Your task to perform on an android device: find snoozed emails in the gmail app Image 0: 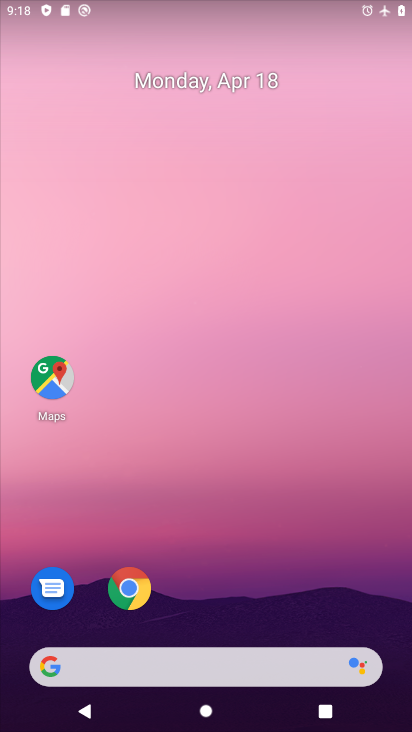
Step 0: drag from (196, 580) to (234, 341)
Your task to perform on an android device: find snoozed emails in the gmail app Image 1: 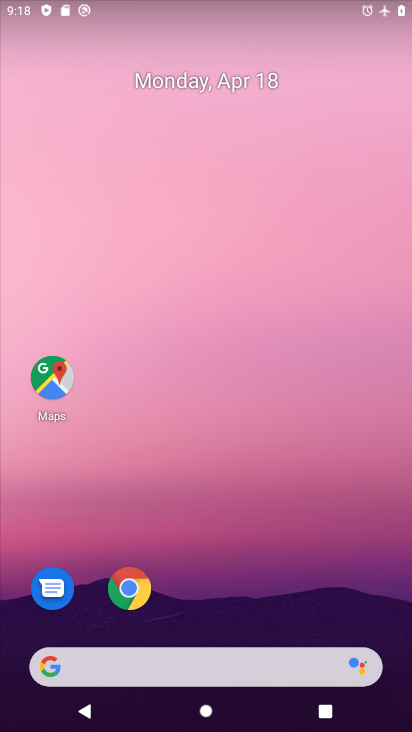
Step 1: drag from (194, 597) to (246, 201)
Your task to perform on an android device: find snoozed emails in the gmail app Image 2: 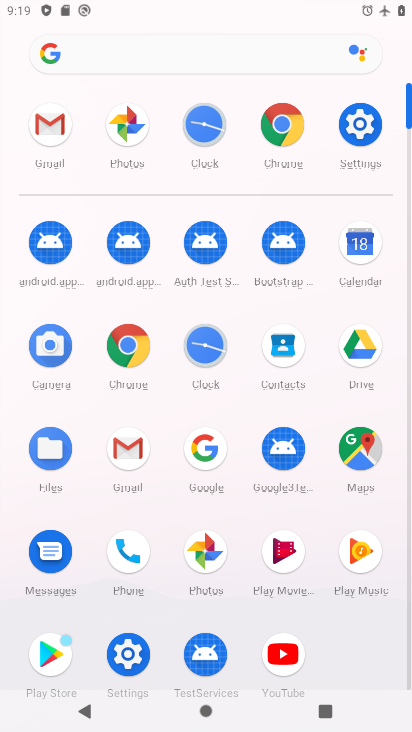
Step 2: click (49, 124)
Your task to perform on an android device: find snoozed emails in the gmail app Image 3: 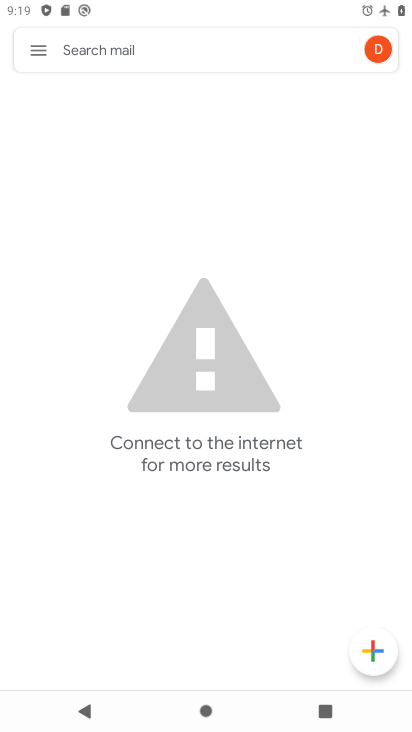
Step 3: click (39, 47)
Your task to perform on an android device: find snoozed emails in the gmail app Image 4: 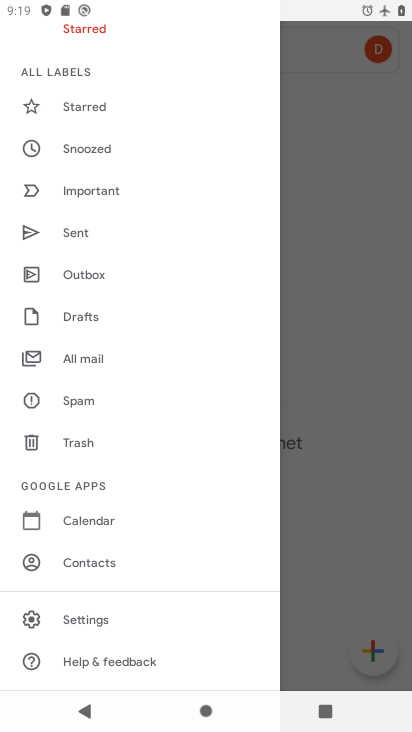
Step 4: click (96, 148)
Your task to perform on an android device: find snoozed emails in the gmail app Image 5: 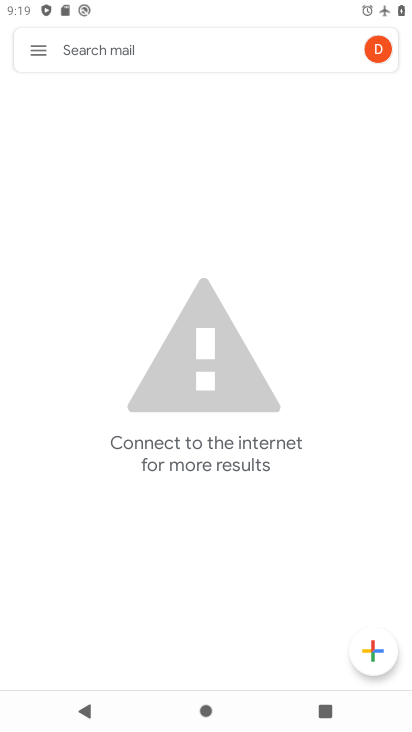
Step 5: task complete